Your task to perform on an android device: Play the last video I watched on Youtube Image 0: 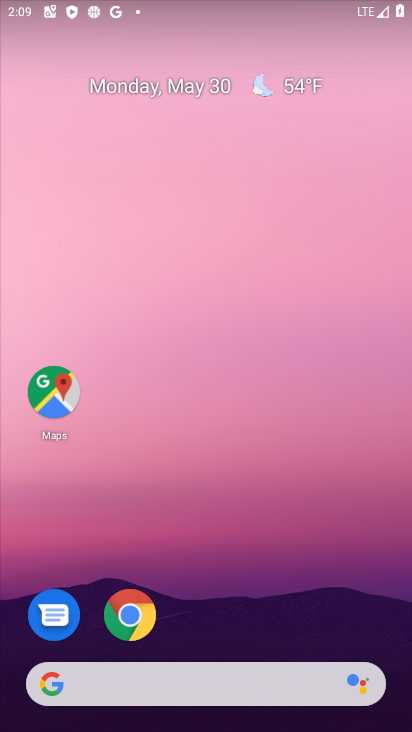
Step 0: drag from (271, 612) to (219, 119)
Your task to perform on an android device: Play the last video I watched on Youtube Image 1: 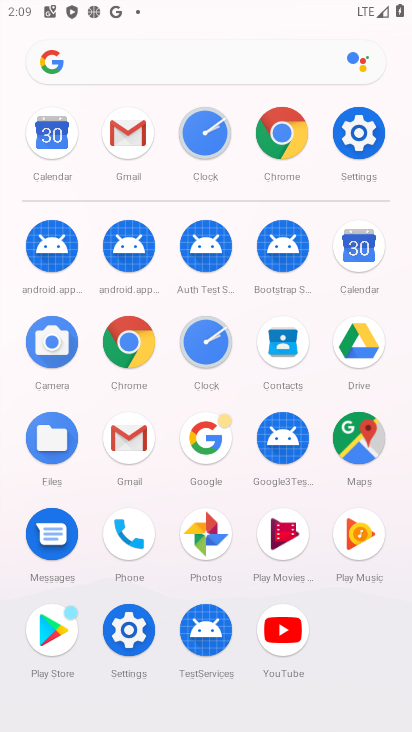
Step 1: click (268, 626)
Your task to perform on an android device: Play the last video I watched on Youtube Image 2: 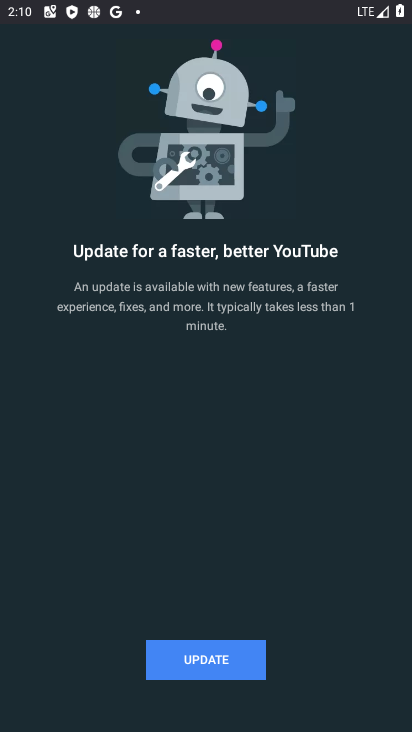
Step 2: click (207, 654)
Your task to perform on an android device: Play the last video I watched on Youtube Image 3: 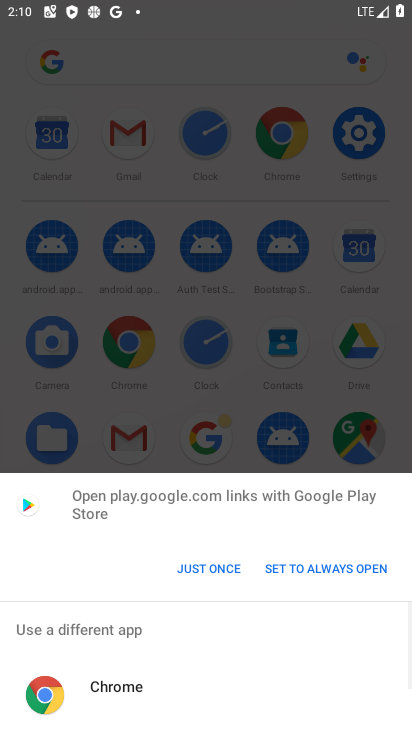
Step 3: click (200, 569)
Your task to perform on an android device: Play the last video I watched on Youtube Image 4: 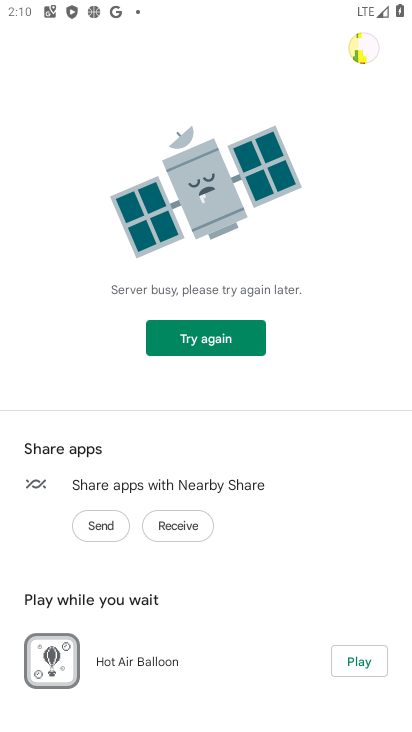
Step 4: task complete